Your task to perform on an android device: Turn on the flashlight Image 0: 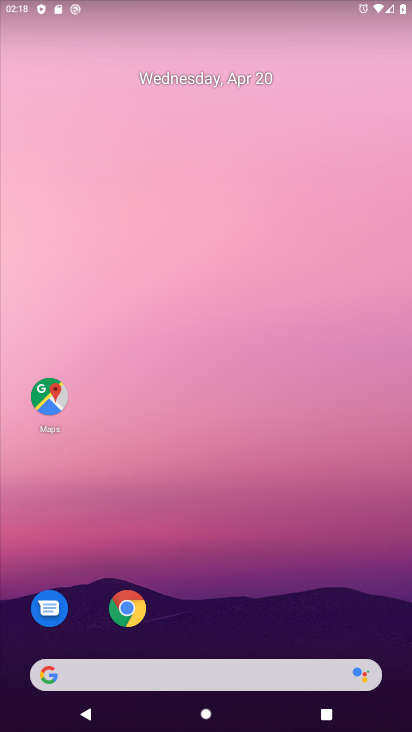
Step 0: drag from (274, 599) to (336, 30)
Your task to perform on an android device: Turn on the flashlight Image 1: 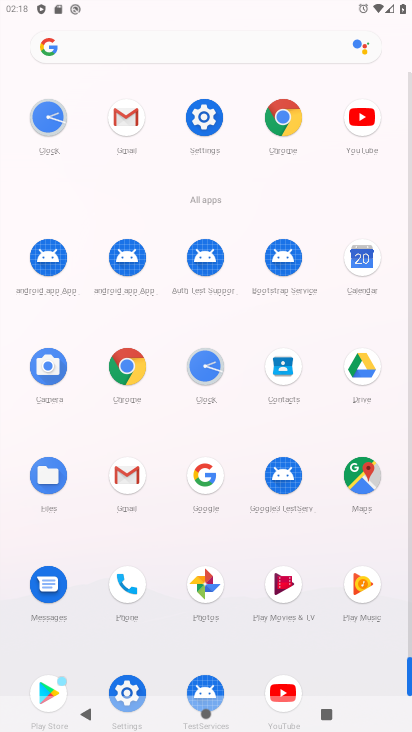
Step 1: click (203, 122)
Your task to perform on an android device: Turn on the flashlight Image 2: 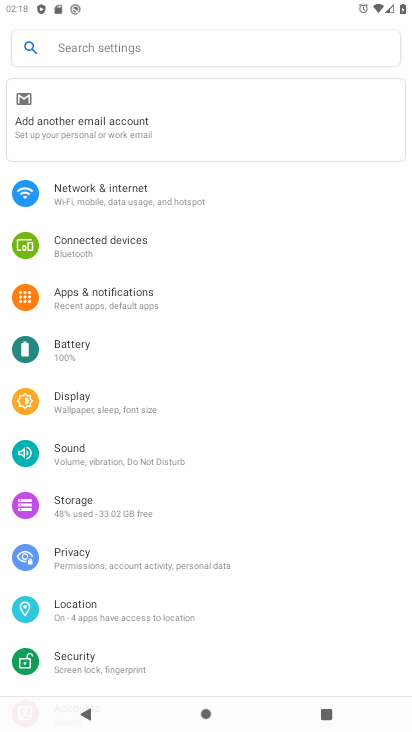
Step 2: drag from (194, 425) to (199, 350)
Your task to perform on an android device: Turn on the flashlight Image 3: 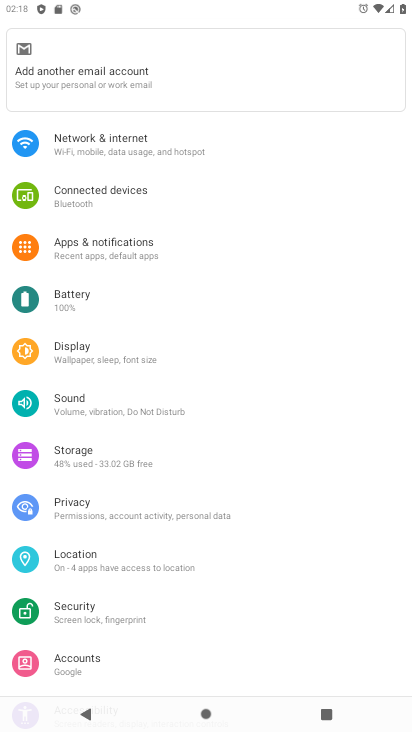
Step 3: drag from (200, 403) to (202, 315)
Your task to perform on an android device: Turn on the flashlight Image 4: 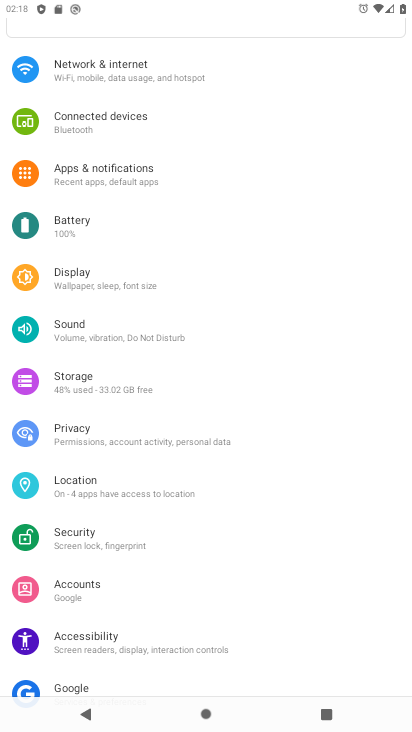
Step 4: drag from (168, 399) to (162, 317)
Your task to perform on an android device: Turn on the flashlight Image 5: 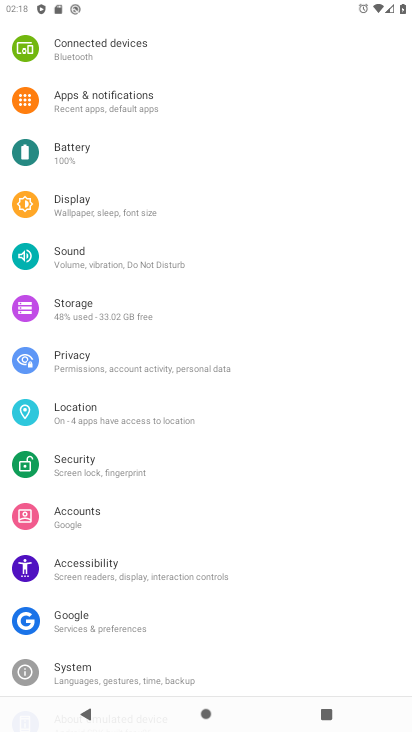
Step 5: drag from (153, 403) to (160, 344)
Your task to perform on an android device: Turn on the flashlight Image 6: 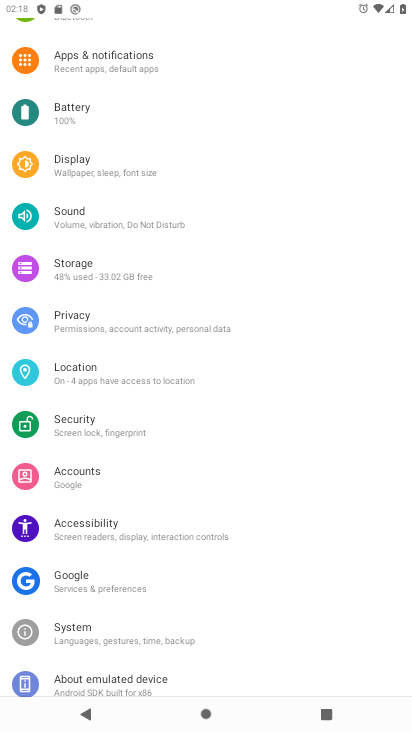
Step 6: drag from (168, 407) to (186, 330)
Your task to perform on an android device: Turn on the flashlight Image 7: 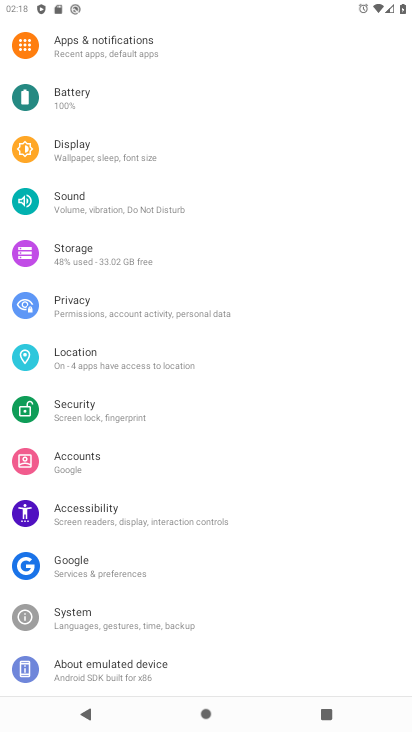
Step 7: drag from (167, 367) to (175, 426)
Your task to perform on an android device: Turn on the flashlight Image 8: 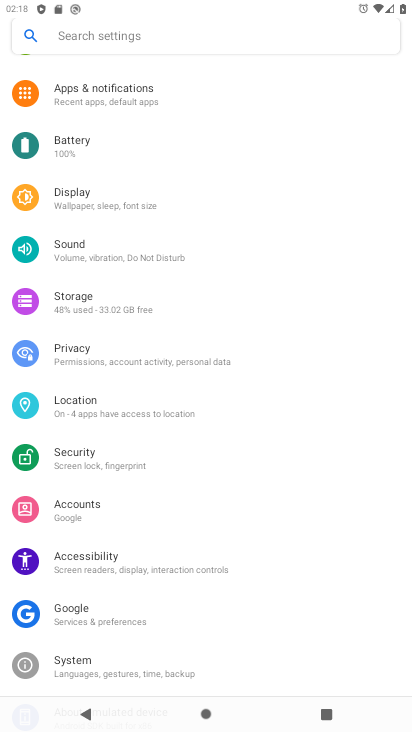
Step 8: drag from (177, 371) to (176, 413)
Your task to perform on an android device: Turn on the flashlight Image 9: 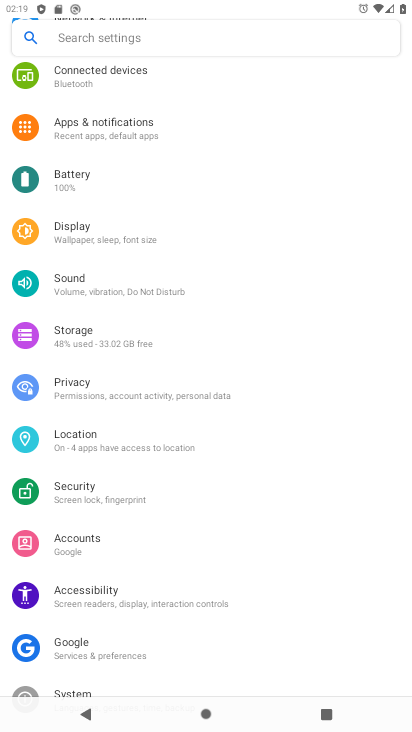
Step 9: drag from (185, 374) to (185, 429)
Your task to perform on an android device: Turn on the flashlight Image 10: 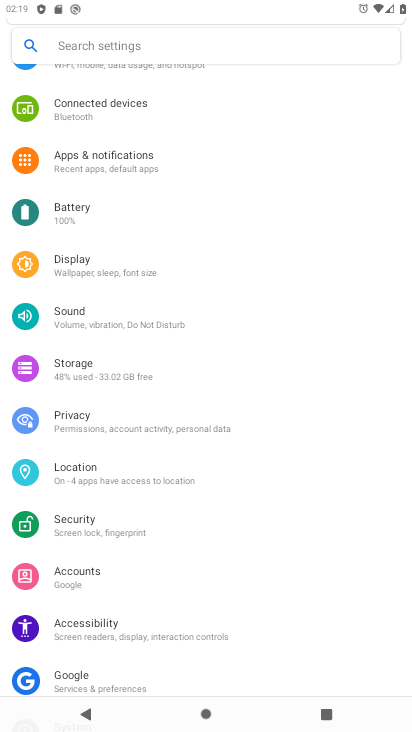
Step 10: drag from (183, 385) to (165, 427)
Your task to perform on an android device: Turn on the flashlight Image 11: 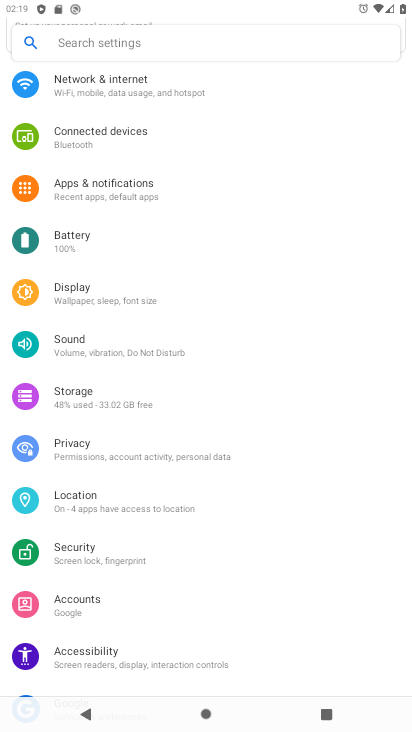
Step 11: drag from (172, 375) to (175, 416)
Your task to perform on an android device: Turn on the flashlight Image 12: 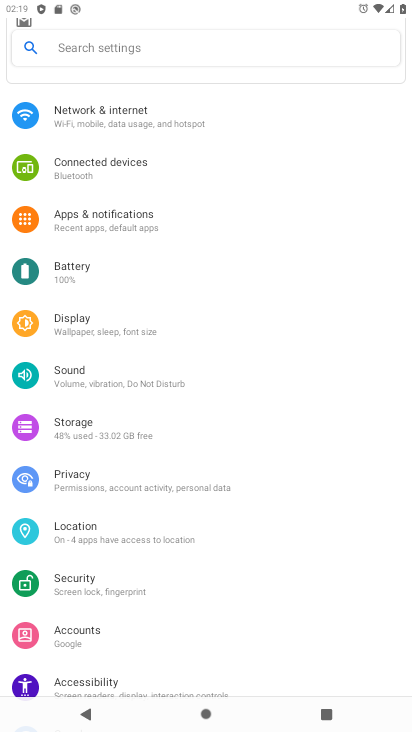
Step 12: drag from (194, 375) to (209, 435)
Your task to perform on an android device: Turn on the flashlight Image 13: 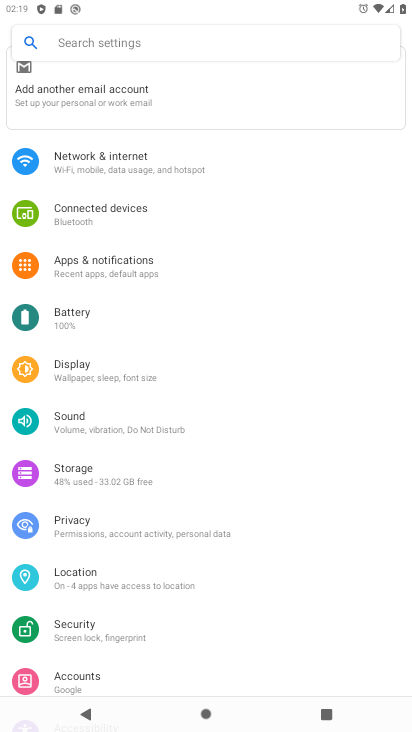
Step 13: drag from (200, 410) to (193, 445)
Your task to perform on an android device: Turn on the flashlight Image 14: 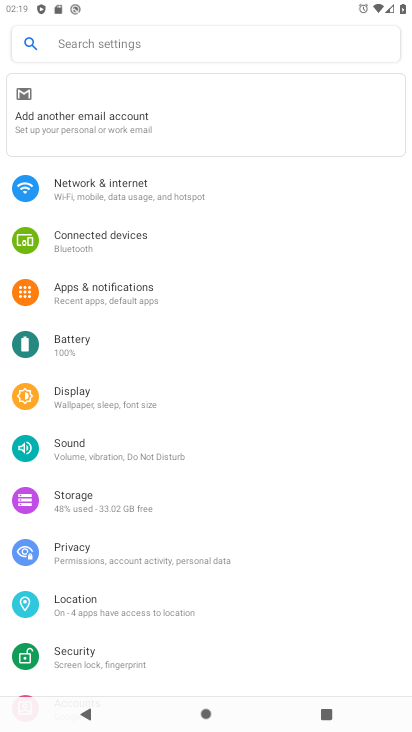
Step 14: drag from (182, 400) to (174, 444)
Your task to perform on an android device: Turn on the flashlight Image 15: 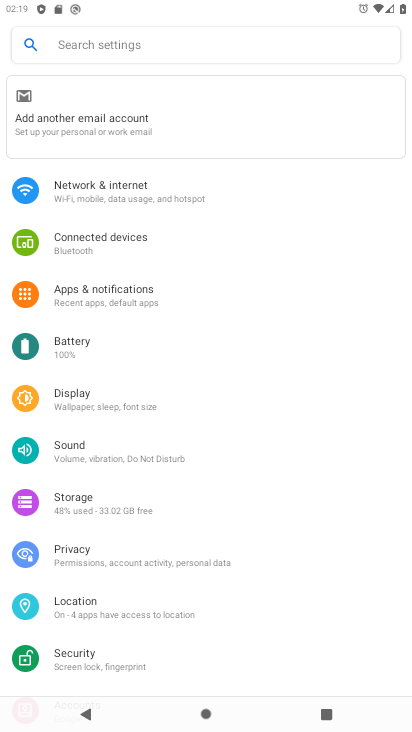
Step 15: click (165, 404)
Your task to perform on an android device: Turn on the flashlight Image 16: 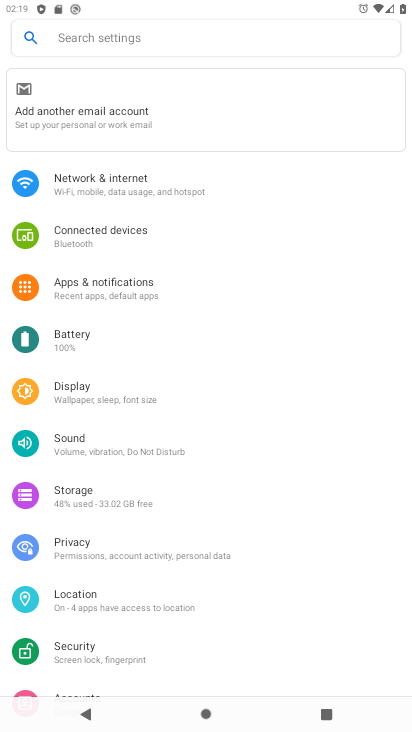
Step 16: click (162, 403)
Your task to perform on an android device: Turn on the flashlight Image 17: 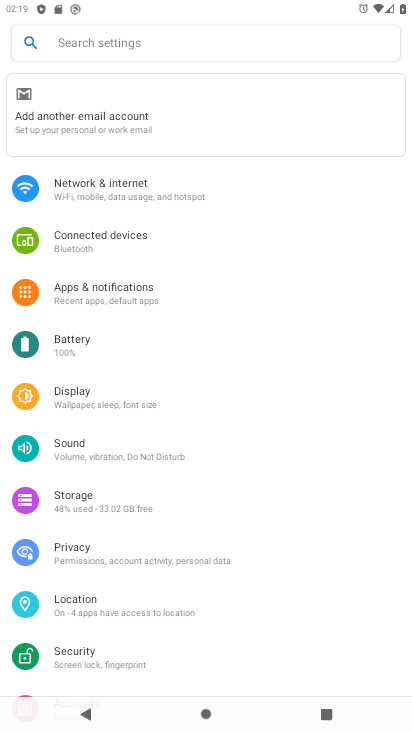
Step 17: click (161, 399)
Your task to perform on an android device: Turn on the flashlight Image 18: 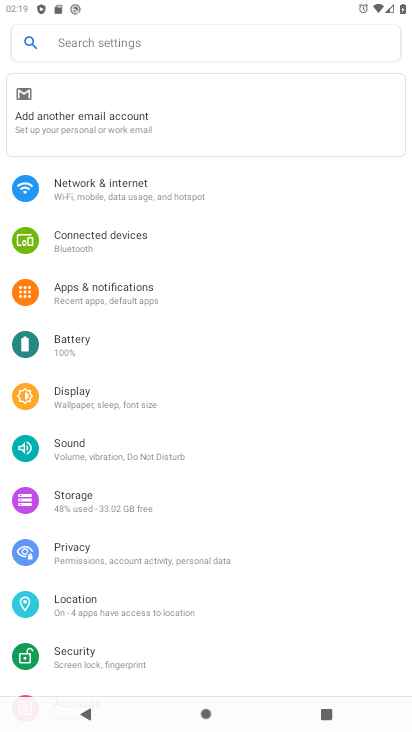
Step 18: drag from (171, 399) to (186, 430)
Your task to perform on an android device: Turn on the flashlight Image 19: 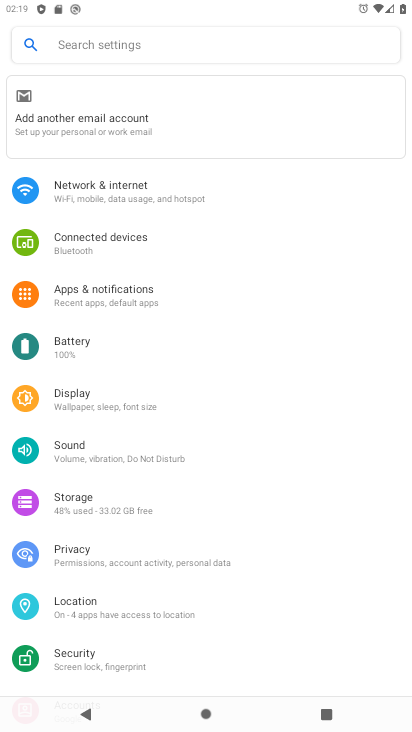
Step 19: click (172, 397)
Your task to perform on an android device: Turn on the flashlight Image 20: 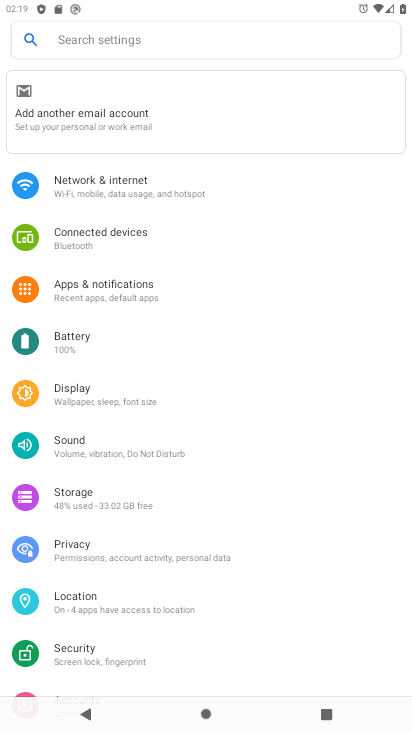
Step 20: task complete